Your task to perform on an android device: Show me popular videos on Youtube Image 0: 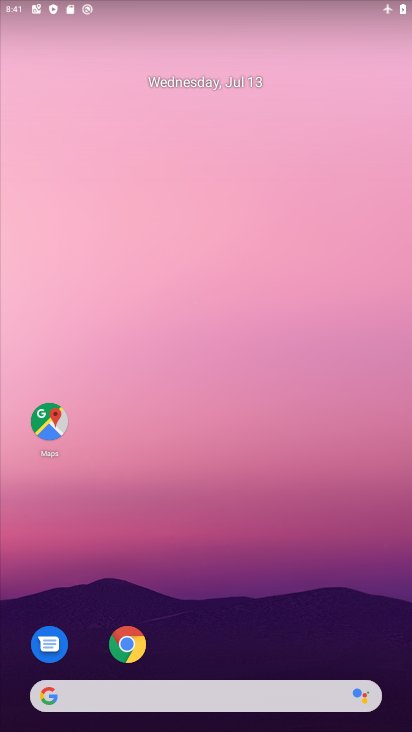
Step 0: drag from (209, 702) to (207, 176)
Your task to perform on an android device: Show me popular videos on Youtube Image 1: 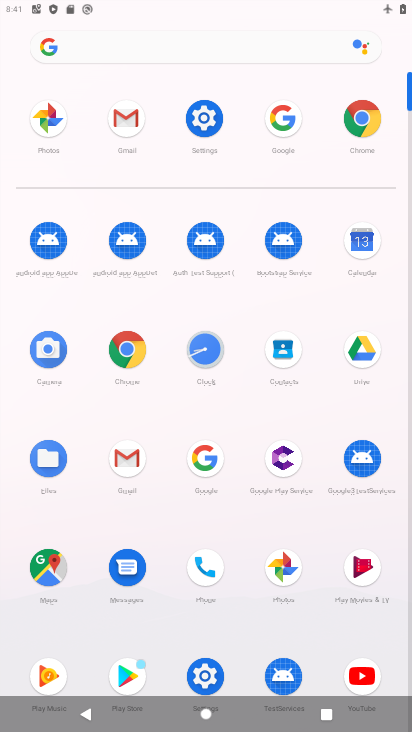
Step 1: click (367, 674)
Your task to perform on an android device: Show me popular videos on Youtube Image 2: 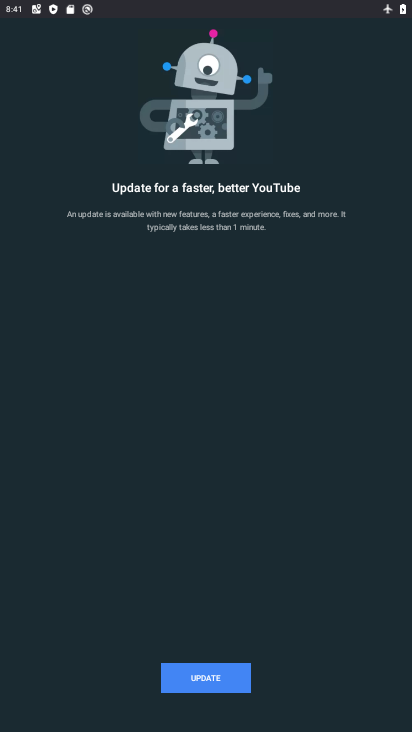
Step 2: click (208, 681)
Your task to perform on an android device: Show me popular videos on Youtube Image 3: 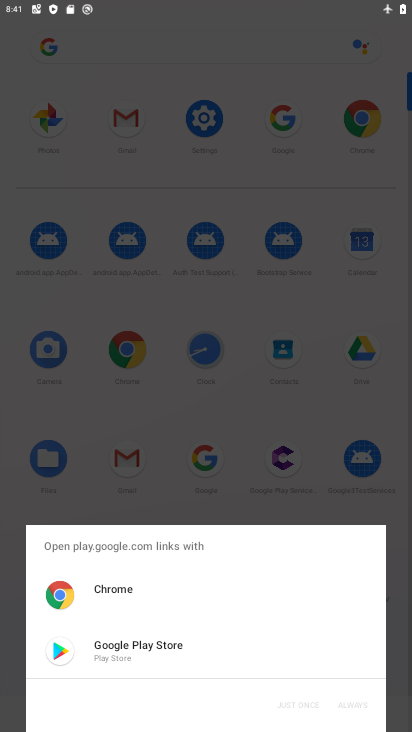
Step 3: click (137, 645)
Your task to perform on an android device: Show me popular videos on Youtube Image 4: 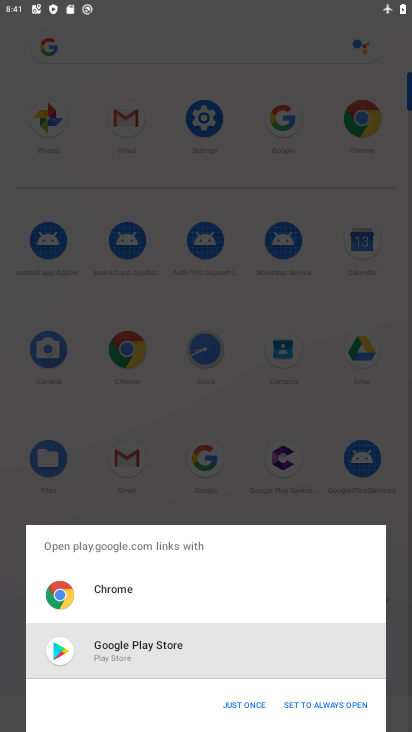
Step 4: click (256, 704)
Your task to perform on an android device: Show me popular videos on Youtube Image 5: 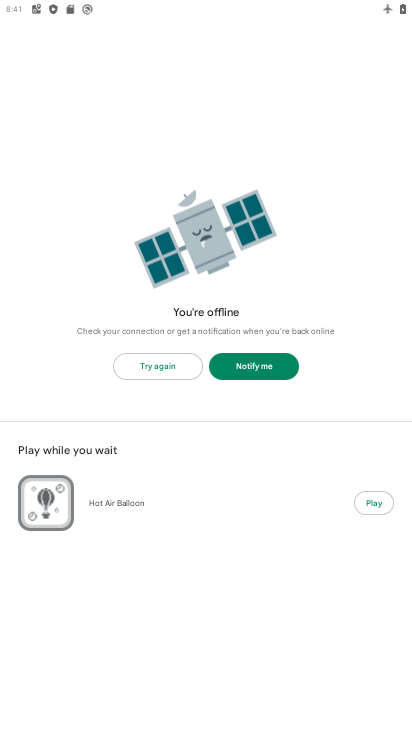
Step 5: task complete